Your task to perform on an android device: What is the news today? Image 0: 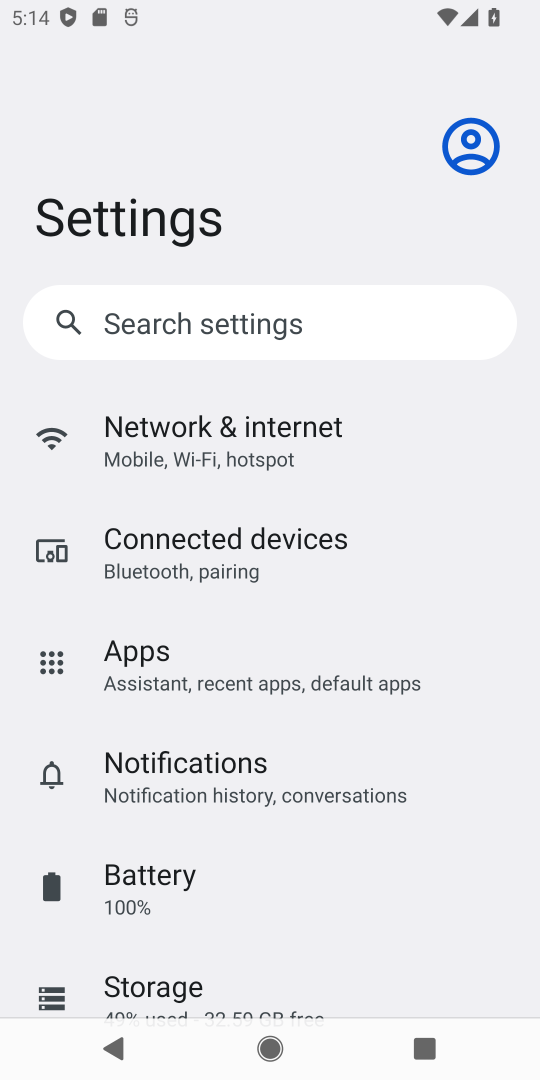
Step 0: press home button
Your task to perform on an android device: What is the news today? Image 1: 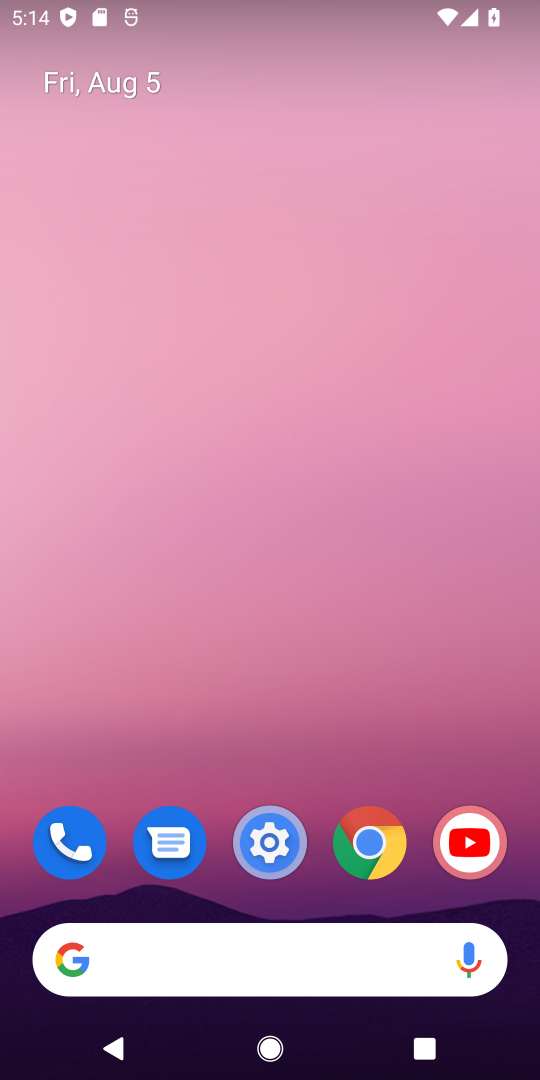
Step 1: click (68, 956)
Your task to perform on an android device: What is the news today? Image 2: 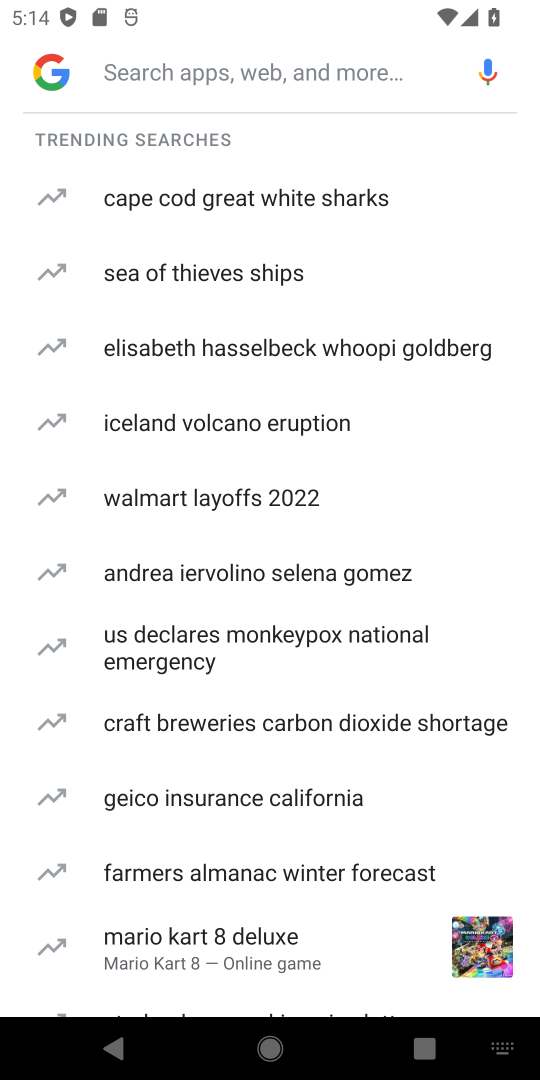
Step 2: type "news today"
Your task to perform on an android device: What is the news today? Image 3: 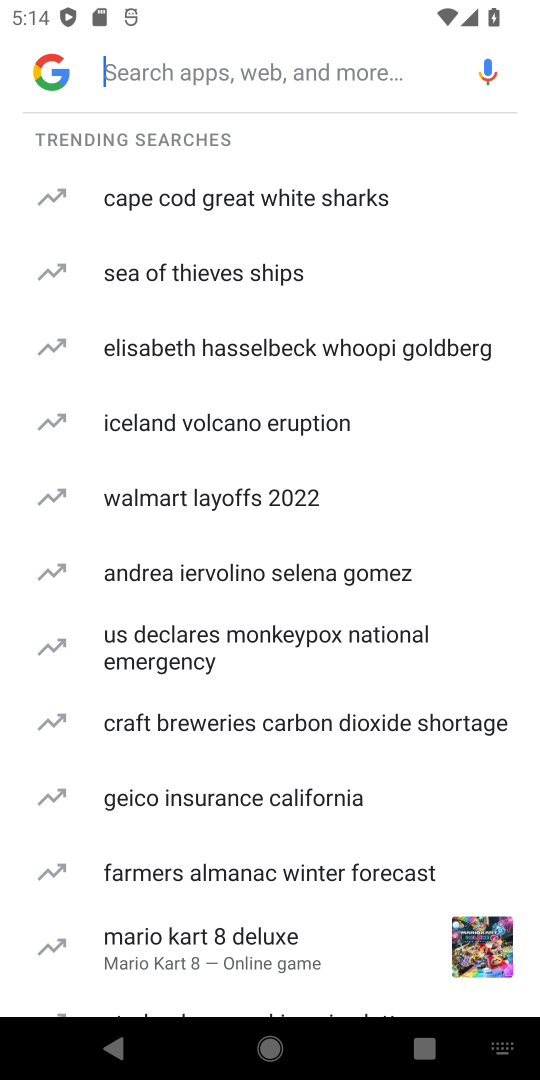
Step 3: click (145, 65)
Your task to perform on an android device: What is the news today? Image 4: 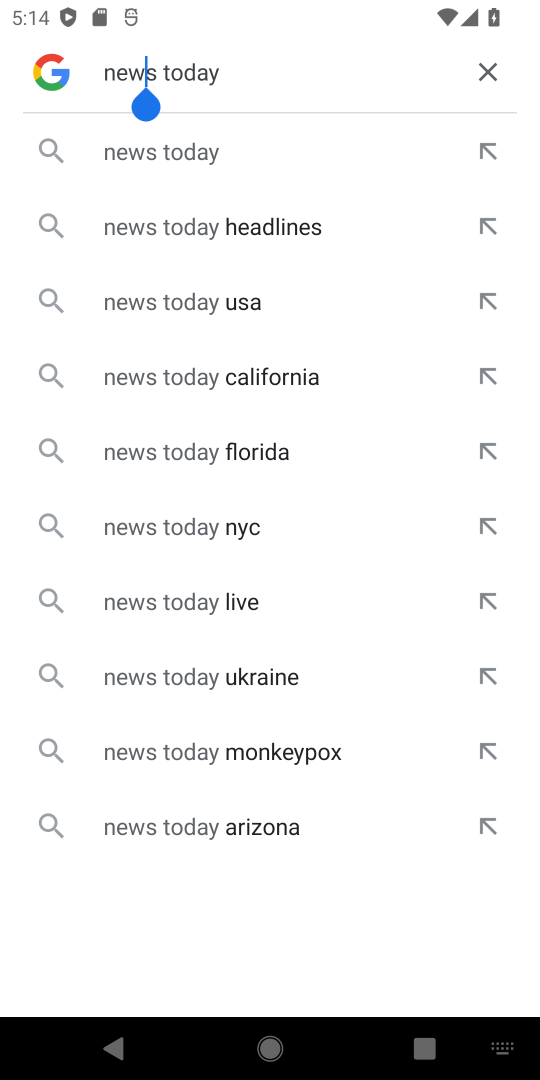
Step 4: click (192, 150)
Your task to perform on an android device: What is the news today? Image 5: 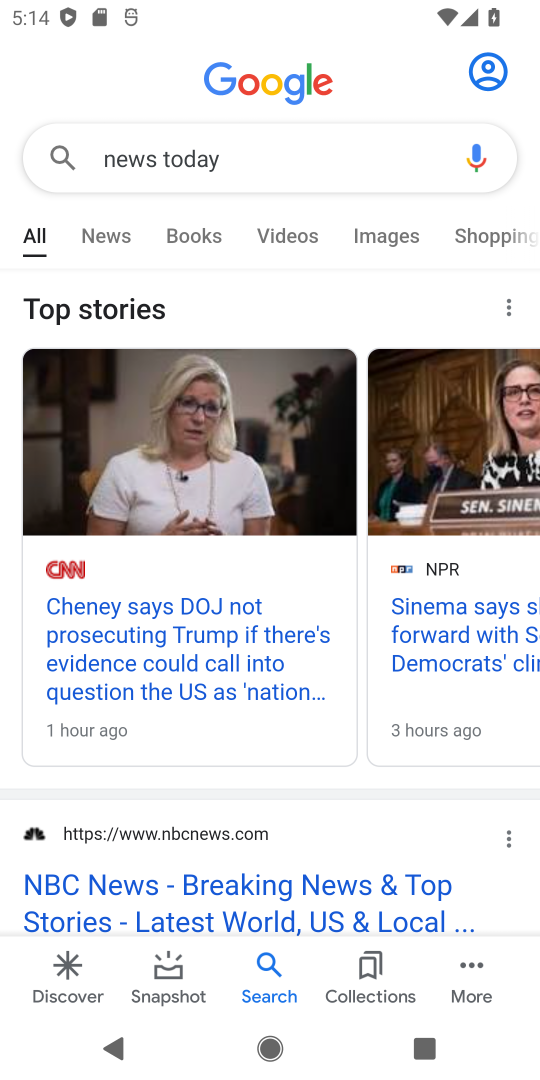
Step 5: task complete